Your task to perform on an android device: clear all cookies in the chrome app Image 0: 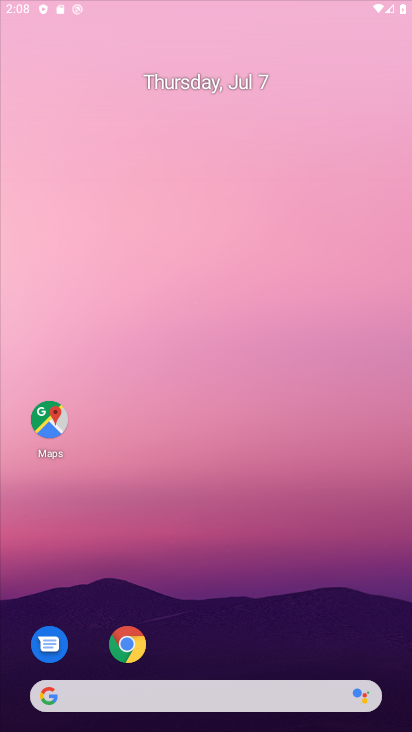
Step 0: press home button
Your task to perform on an android device: clear all cookies in the chrome app Image 1: 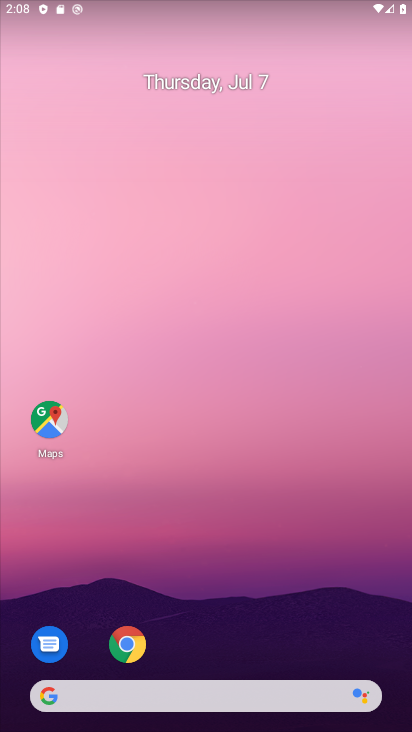
Step 1: click (122, 642)
Your task to perform on an android device: clear all cookies in the chrome app Image 2: 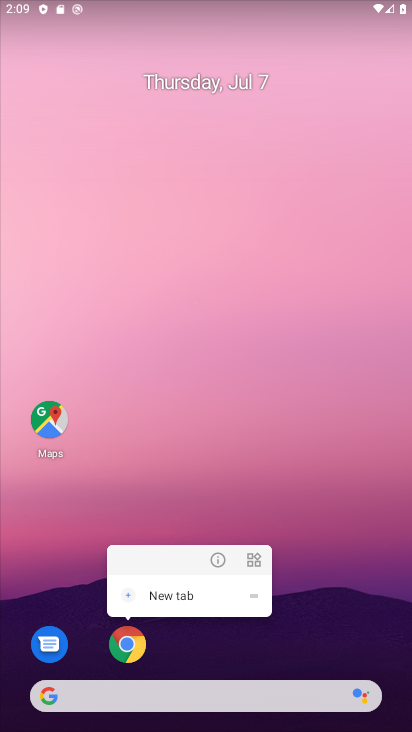
Step 2: click (123, 646)
Your task to perform on an android device: clear all cookies in the chrome app Image 3: 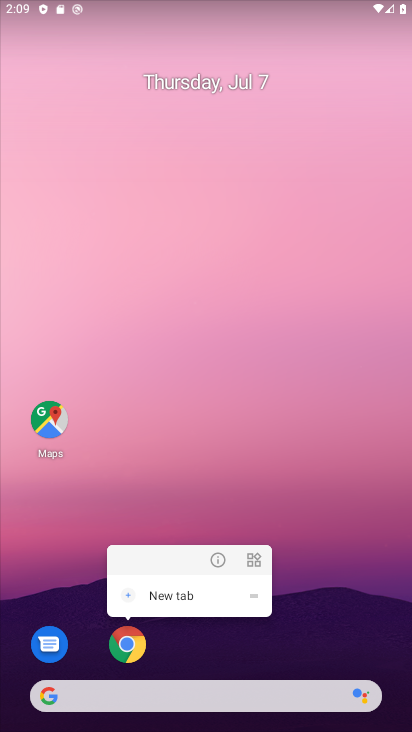
Step 3: click (238, 658)
Your task to perform on an android device: clear all cookies in the chrome app Image 4: 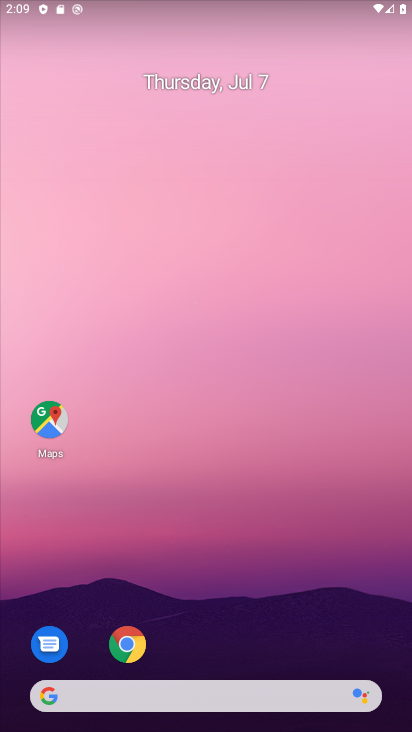
Step 4: drag from (243, 647) to (145, 61)
Your task to perform on an android device: clear all cookies in the chrome app Image 5: 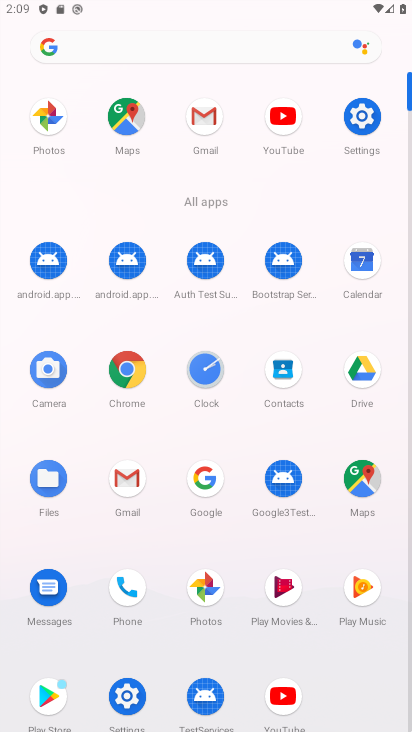
Step 5: click (123, 371)
Your task to perform on an android device: clear all cookies in the chrome app Image 6: 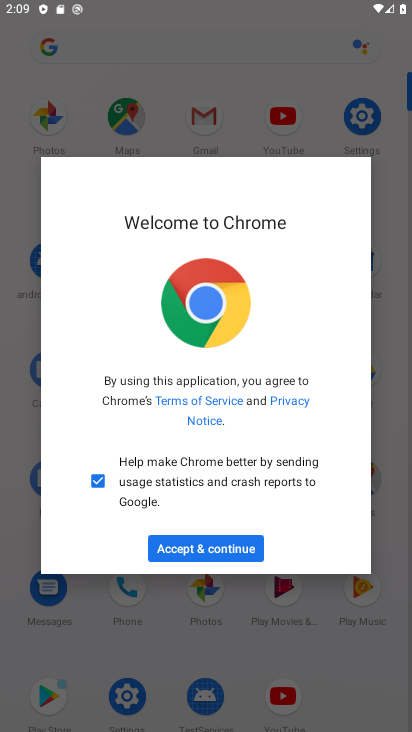
Step 6: click (130, 373)
Your task to perform on an android device: clear all cookies in the chrome app Image 7: 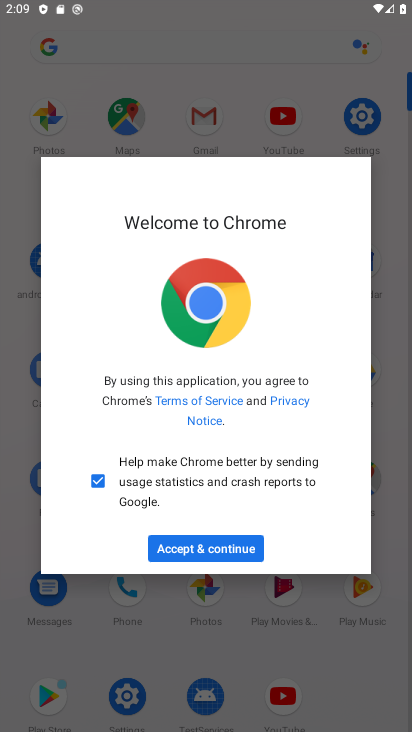
Step 7: click (204, 549)
Your task to perform on an android device: clear all cookies in the chrome app Image 8: 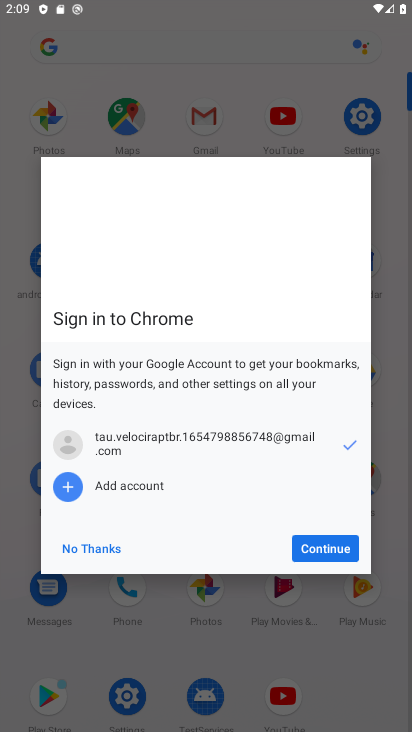
Step 8: click (304, 551)
Your task to perform on an android device: clear all cookies in the chrome app Image 9: 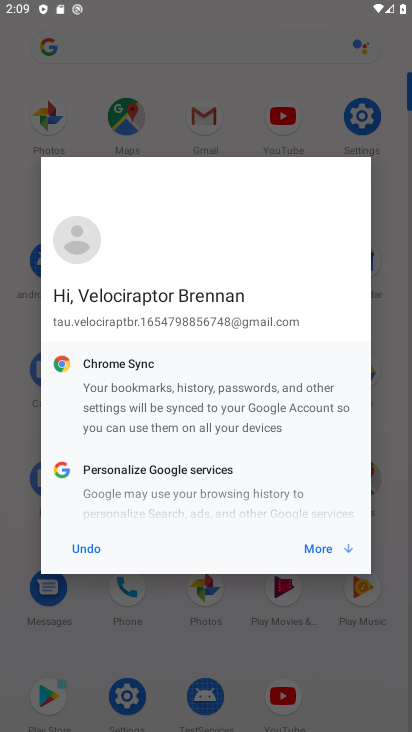
Step 9: click (318, 551)
Your task to perform on an android device: clear all cookies in the chrome app Image 10: 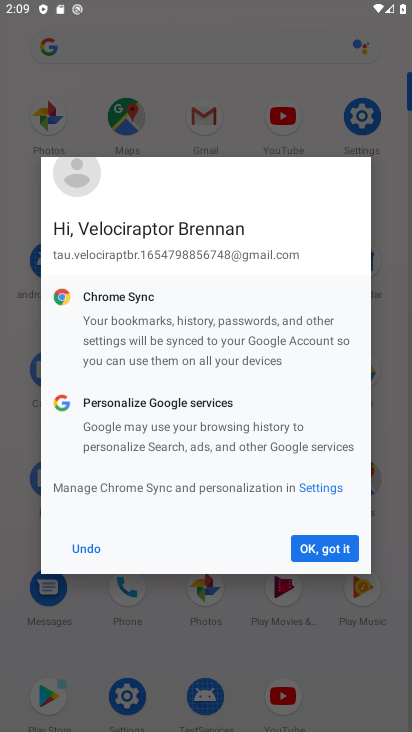
Step 10: click (318, 550)
Your task to perform on an android device: clear all cookies in the chrome app Image 11: 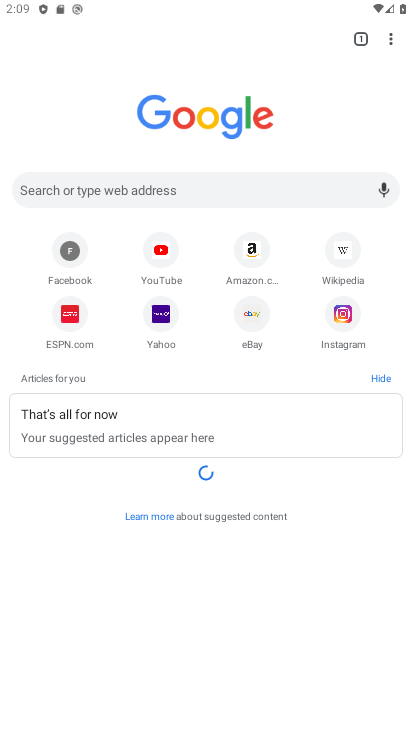
Step 11: drag from (388, 40) to (254, 331)
Your task to perform on an android device: clear all cookies in the chrome app Image 12: 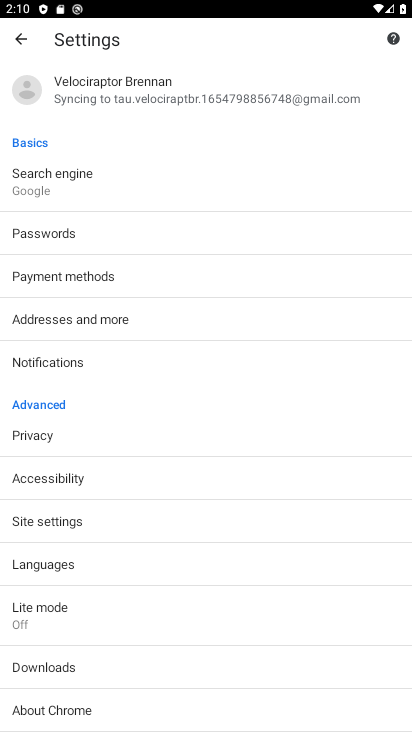
Step 12: click (25, 434)
Your task to perform on an android device: clear all cookies in the chrome app Image 13: 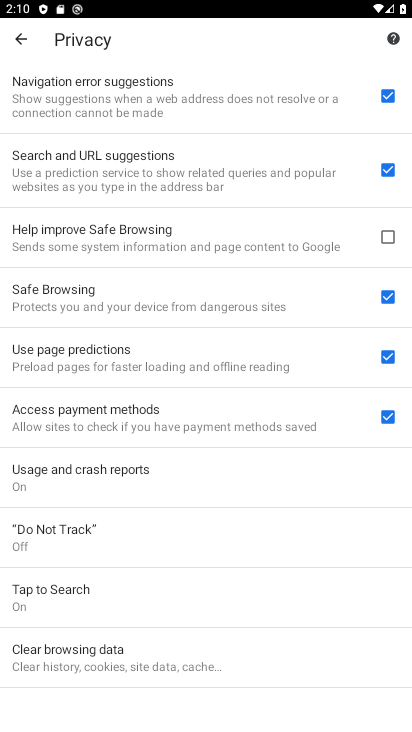
Step 13: click (79, 652)
Your task to perform on an android device: clear all cookies in the chrome app Image 14: 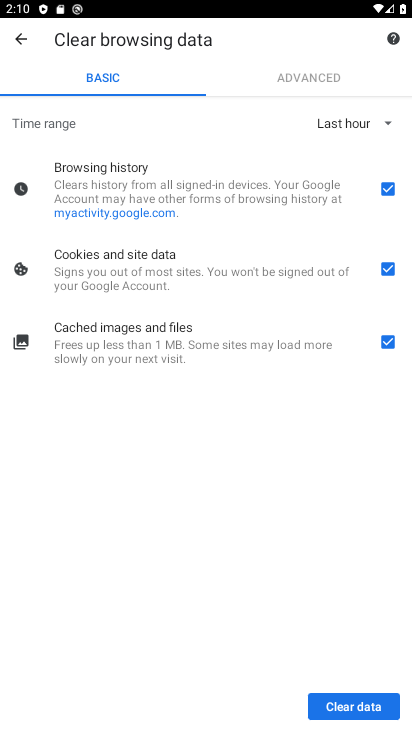
Step 14: click (391, 188)
Your task to perform on an android device: clear all cookies in the chrome app Image 15: 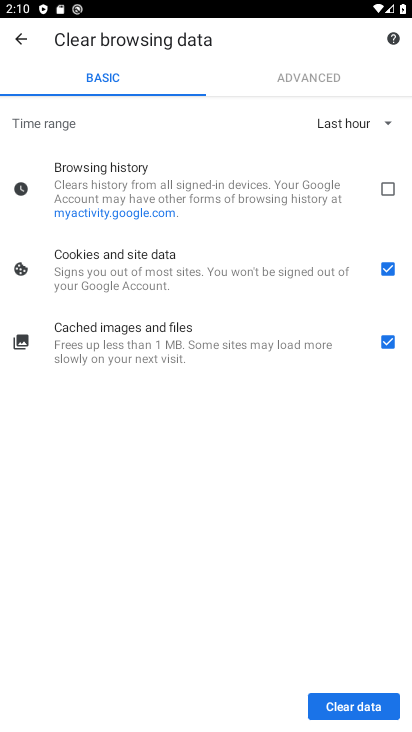
Step 15: click (382, 344)
Your task to perform on an android device: clear all cookies in the chrome app Image 16: 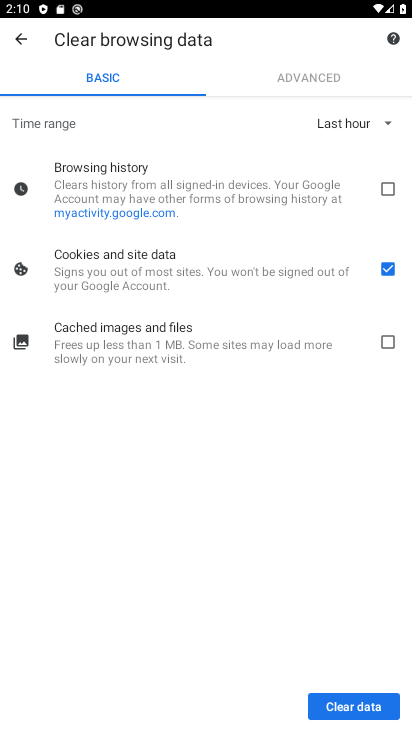
Step 16: click (352, 709)
Your task to perform on an android device: clear all cookies in the chrome app Image 17: 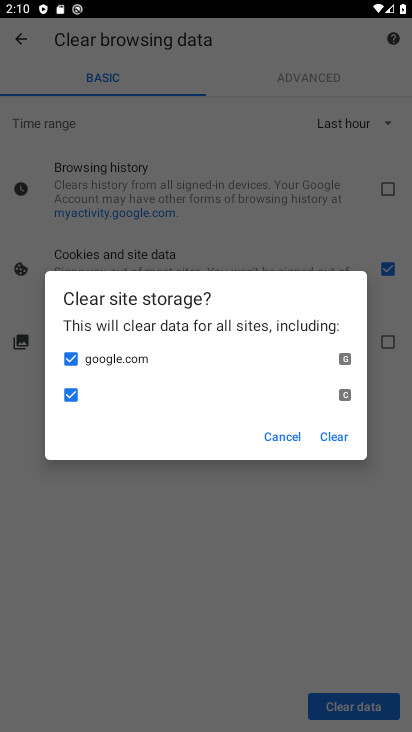
Step 17: click (340, 440)
Your task to perform on an android device: clear all cookies in the chrome app Image 18: 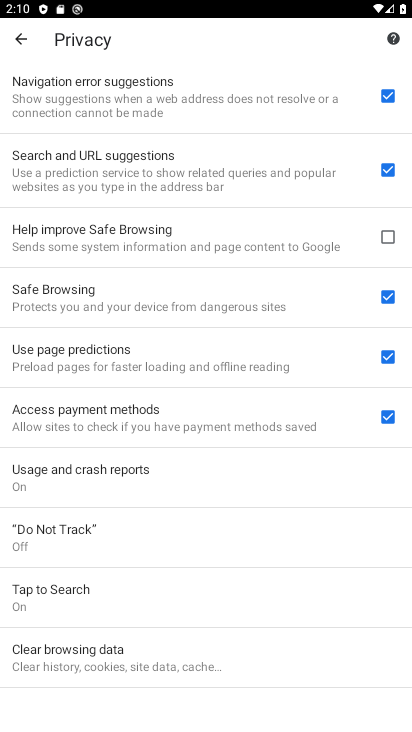
Step 18: task complete